Your task to perform on an android device: Search for Italian restaurants on Maps Image 0: 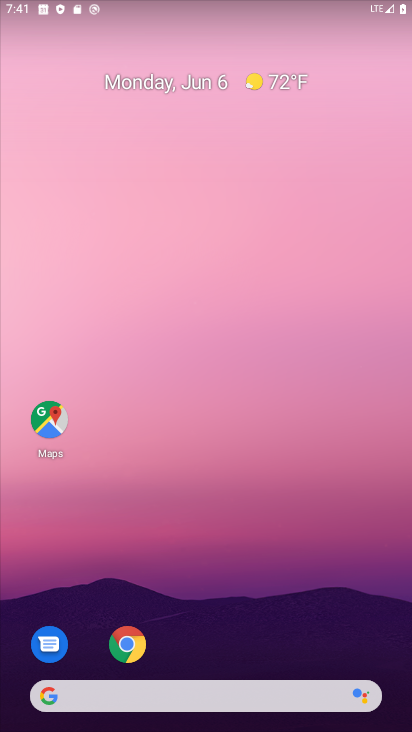
Step 0: drag from (194, 717) to (152, 164)
Your task to perform on an android device: Search for Italian restaurants on Maps Image 1: 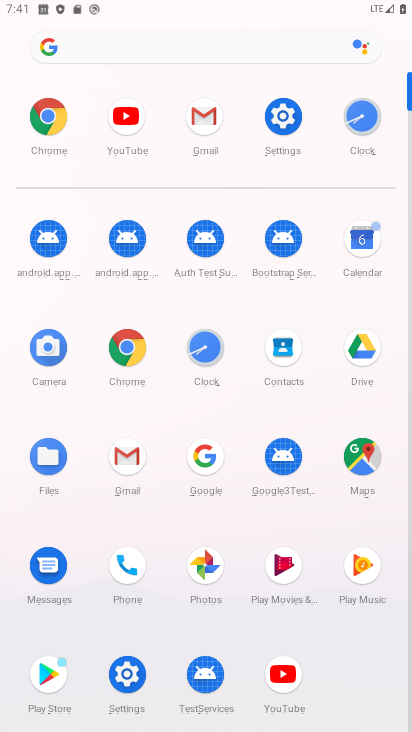
Step 1: click (361, 452)
Your task to perform on an android device: Search for Italian restaurants on Maps Image 2: 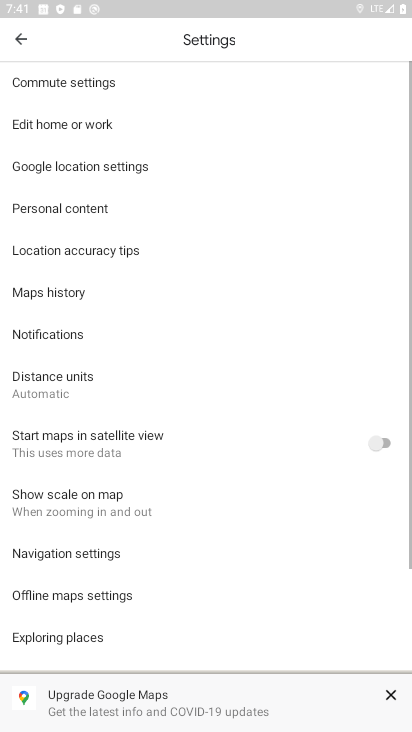
Step 2: click (40, 36)
Your task to perform on an android device: Search for Italian restaurants on Maps Image 3: 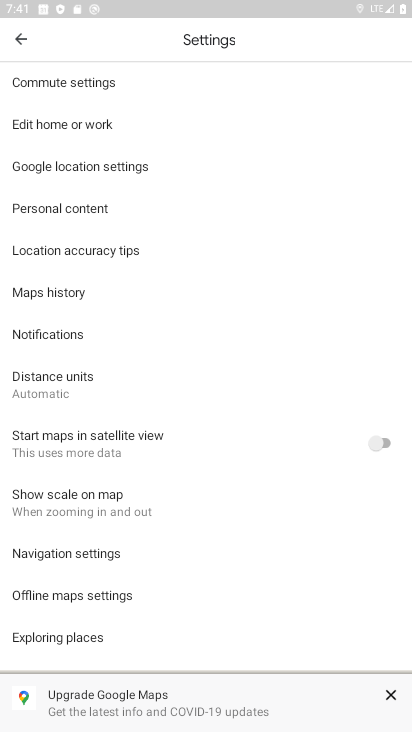
Step 3: click (13, 40)
Your task to perform on an android device: Search for Italian restaurants on Maps Image 4: 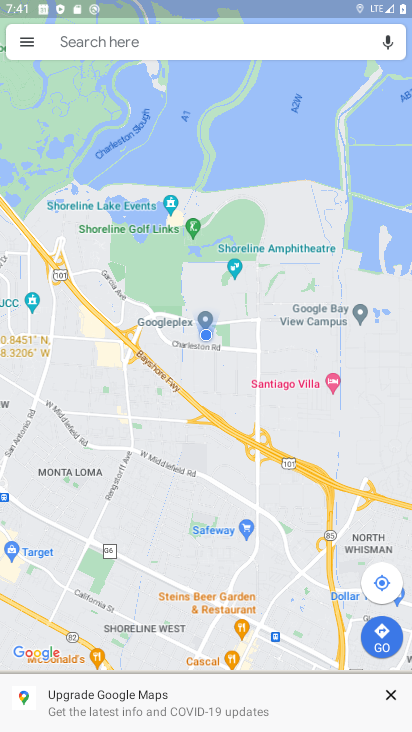
Step 4: click (150, 34)
Your task to perform on an android device: Search for Italian restaurants on Maps Image 5: 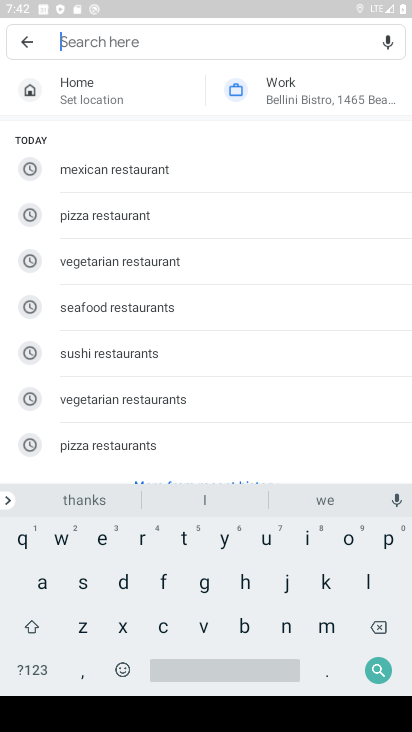
Step 5: click (313, 535)
Your task to perform on an android device: Search for Italian restaurants on Maps Image 6: 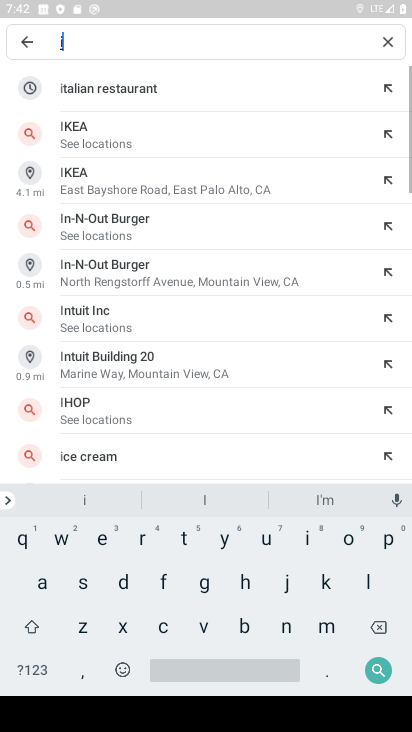
Step 6: click (125, 94)
Your task to perform on an android device: Search for Italian restaurants on Maps Image 7: 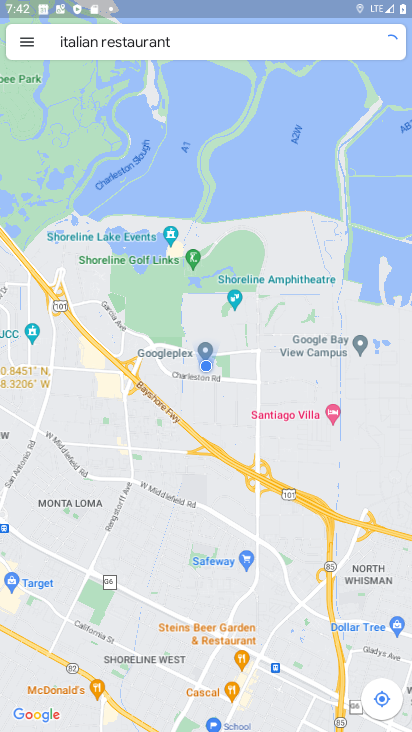
Step 7: task complete